Your task to perform on an android device: check the backup settings in the google photos Image 0: 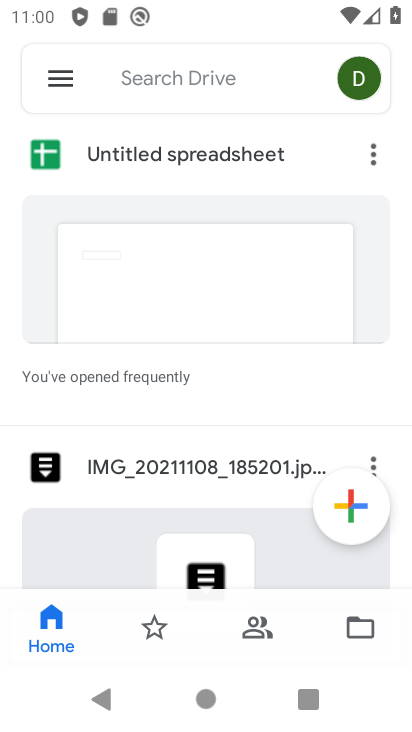
Step 0: press home button
Your task to perform on an android device: check the backup settings in the google photos Image 1: 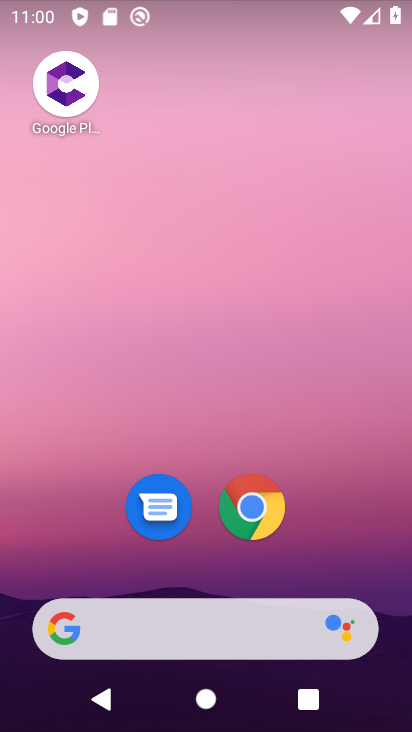
Step 1: drag from (97, 583) to (228, 30)
Your task to perform on an android device: check the backup settings in the google photos Image 2: 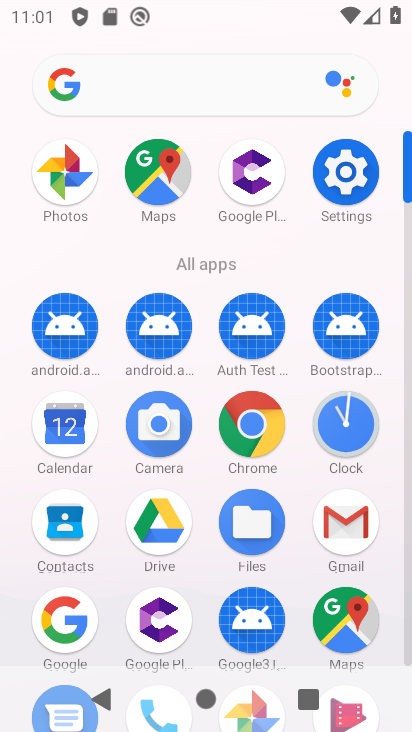
Step 2: drag from (174, 613) to (253, 325)
Your task to perform on an android device: check the backup settings in the google photos Image 3: 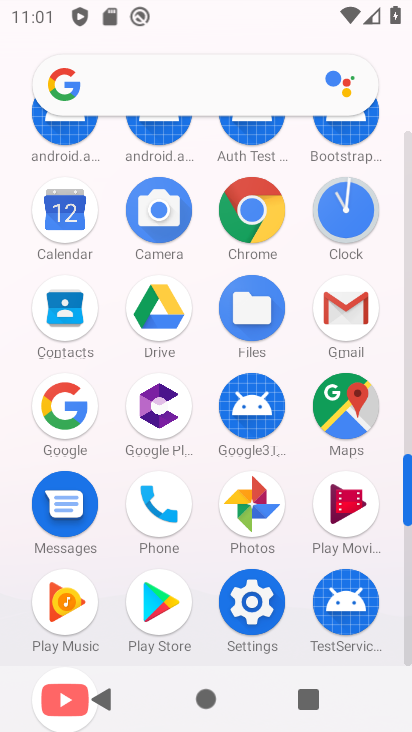
Step 3: click (248, 479)
Your task to perform on an android device: check the backup settings in the google photos Image 4: 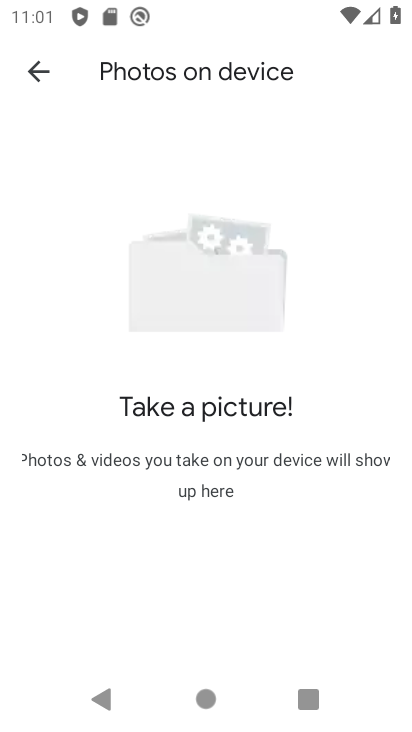
Step 4: click (25, 87)
Your task to perform on an android device: check the backup settings in the google photos Image 5: 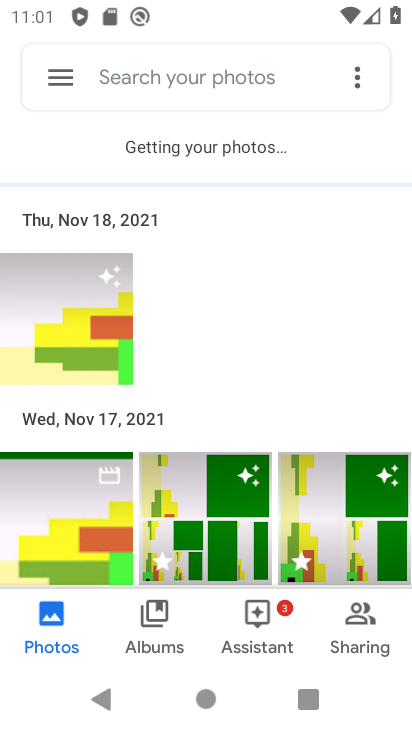
Step 5: click (52, 68)
Your task to perform on an android device: check the backup settings in the google photos Image 6: 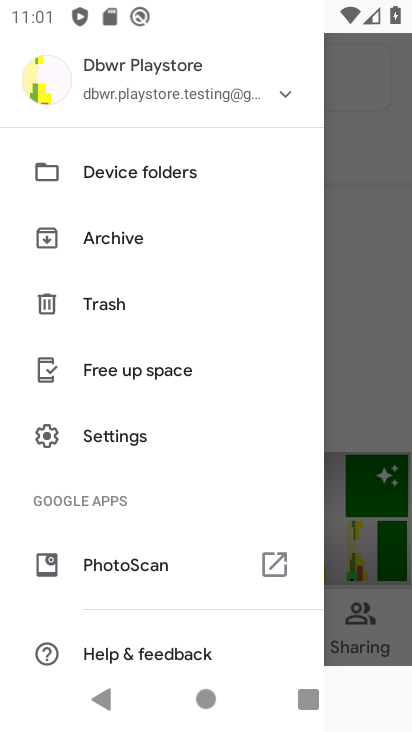
Step 6: click (144, 171)
Your task to perform on an android device: check the backup settings in the google photos Image 7: 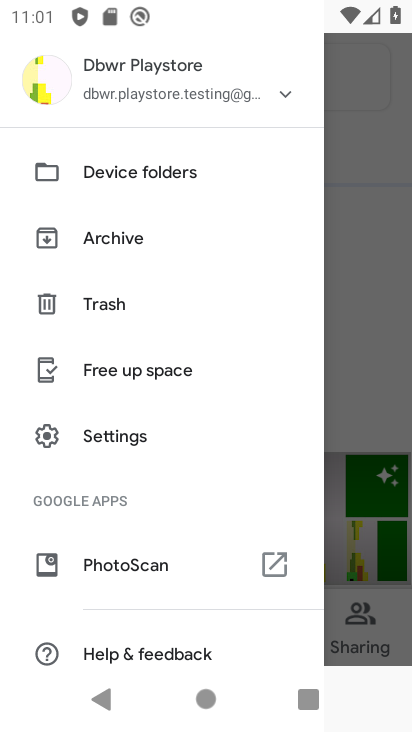
Step 7: click (127, 427)
Your task to perform on an android device: check the backup settings in the google photos Image 8: 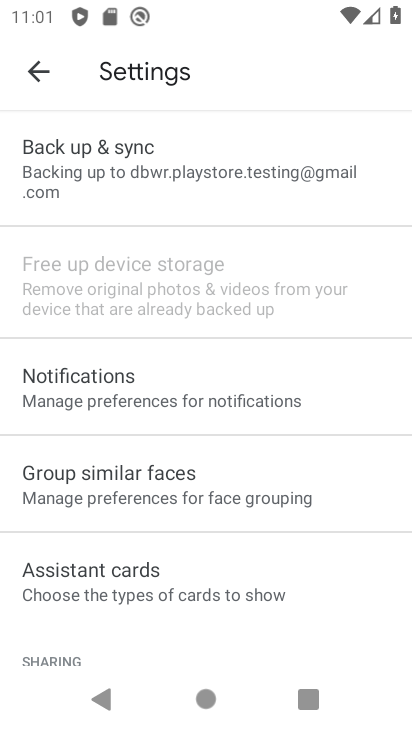
Step 8: click (149, 168)
Your task to perform on an android device: check the backup settings in the google photos Image 9: 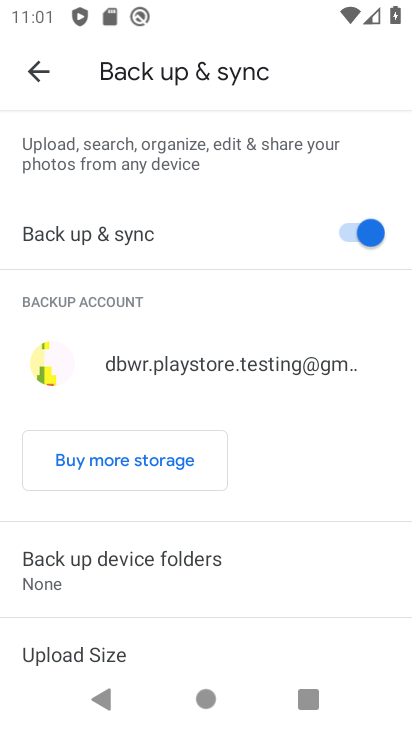
Step 9: task complete